Your task to perform on an android device: What's on my calendar today? Image 0: 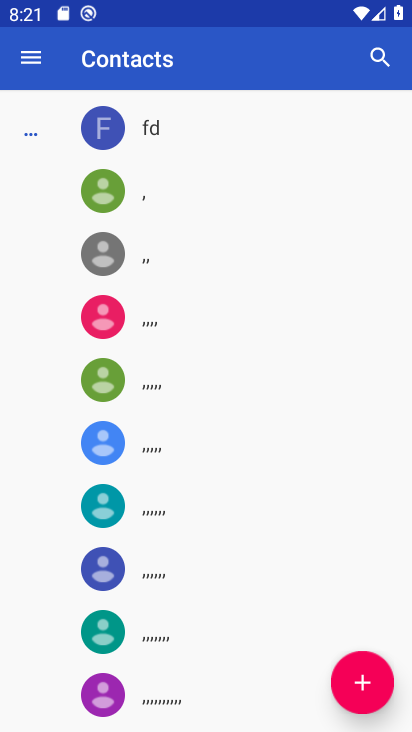
Step 0: press home button
Your task to perform on an android device: What's on my calendar today? Image 1: 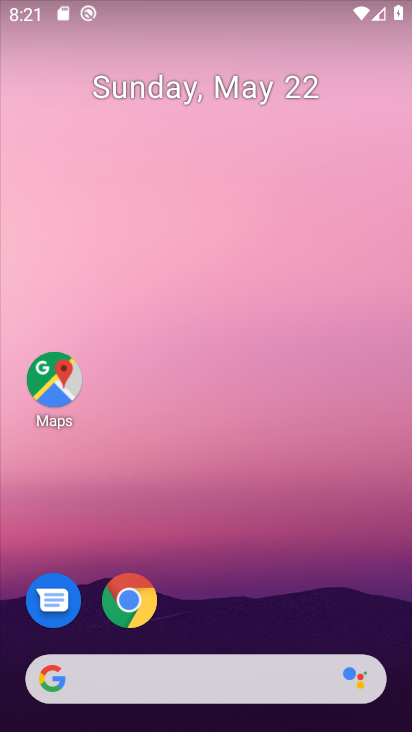
Step 1: drag from (198, 635) to (230, 270)
Your task to perform on an android device: What's on my calendar today? Image 2: 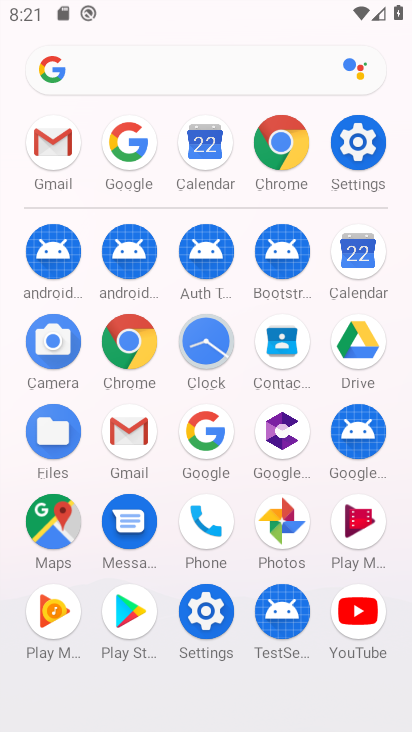
Step 2: click (355, 257)
Your task to perform on an android device: What's on my calendar today? Image 3: 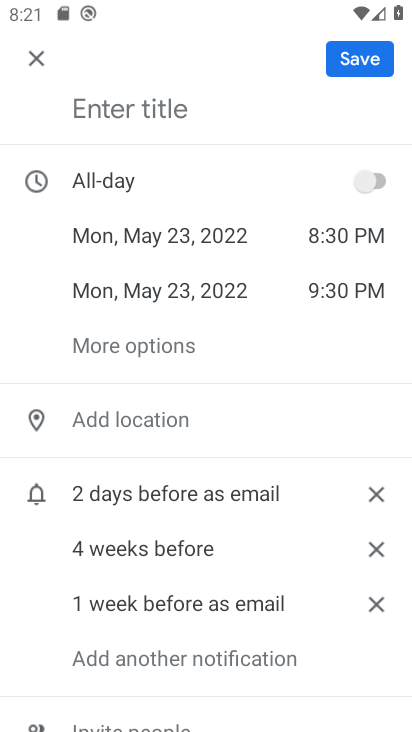
Step 3: click (38, 56)
Your task to perform on an android device: What's on my calendar today? Image 4: 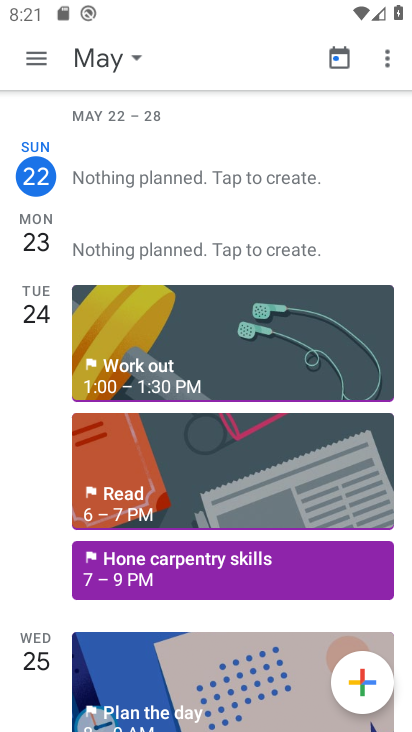
Step 4: click (88, 179)
Your task to perform on an android device: What's on my calendar today? Image 5: 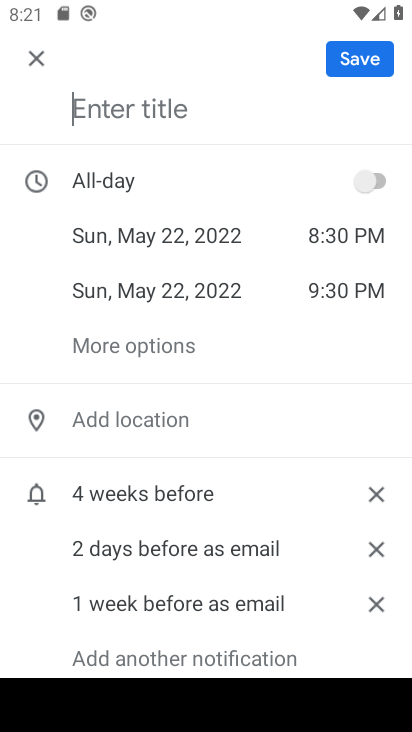
Step 5: task complete